Your task to perform on an android device: Play the last video I watched on Youtube Image 0: 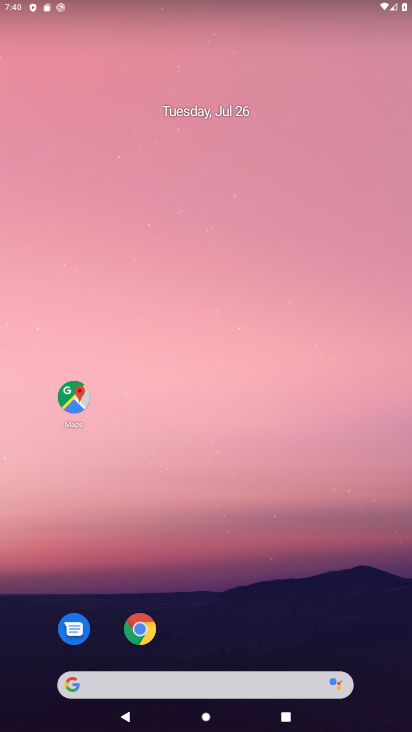
Step 0: drag from (196, 594) to (136, 0)
Your task to perform on an android device: Play the last video I watched on Youtube Image 1: 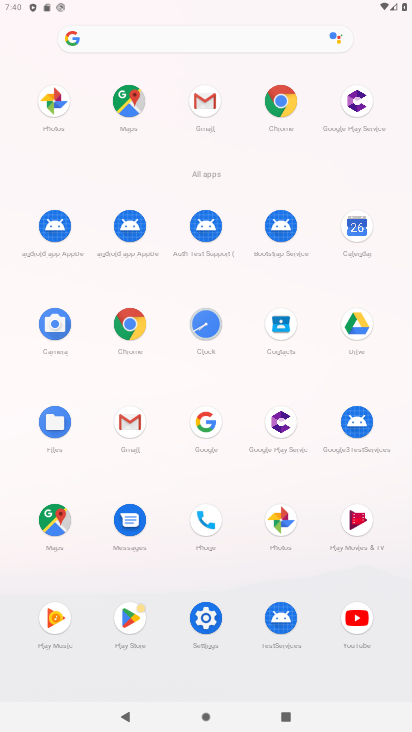
Step 1: click (357, 624)
Your task to perform on an android device: Play the last video I watched on Youtube Image 2: 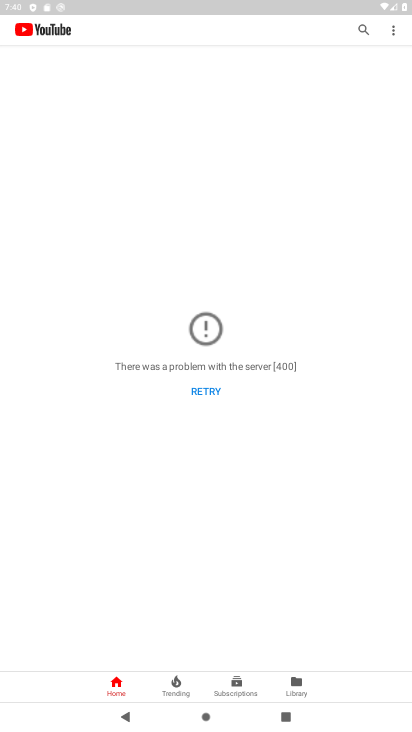
Step 2: click (298, 685)
Your task to perform on an android device: Play the last video I watched on Youtube Image 3: 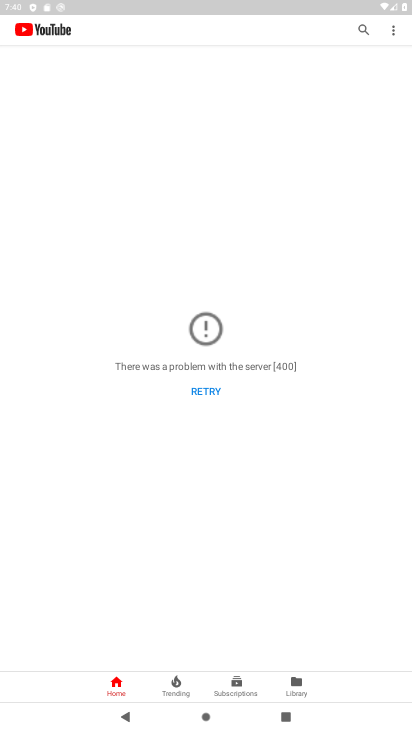
Step 3: click (302, 686)
Your task to perform on an android device: Play the last video I watched on Youtube Image 4: 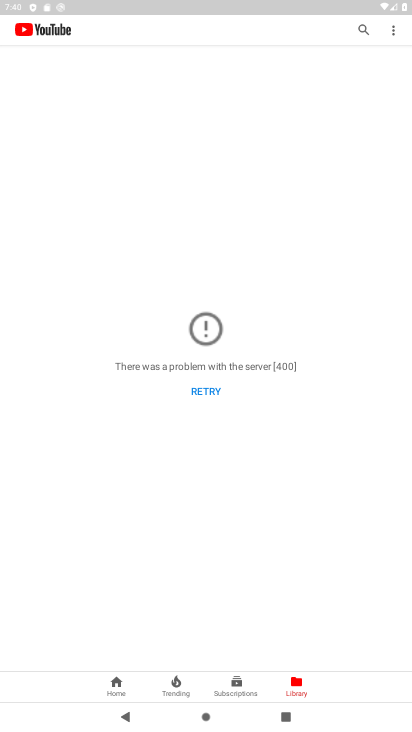
Step 4: task complete